Your task to perform on an android device: create a new album in the google photos Image 0: 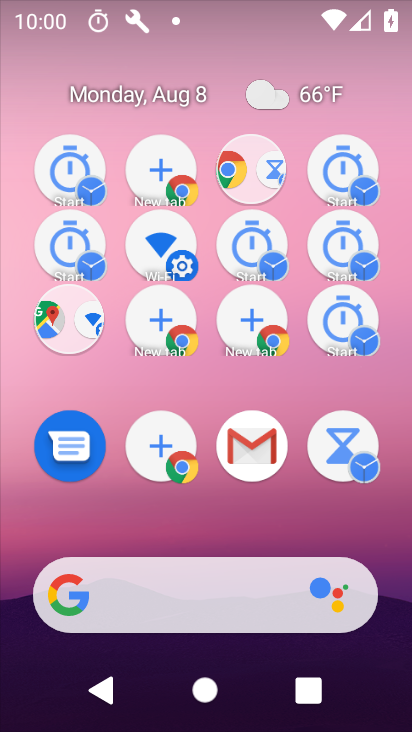
Step 0: click (212, 240)
Your task to perform on an android device: create a new album in the google photos Image 1: 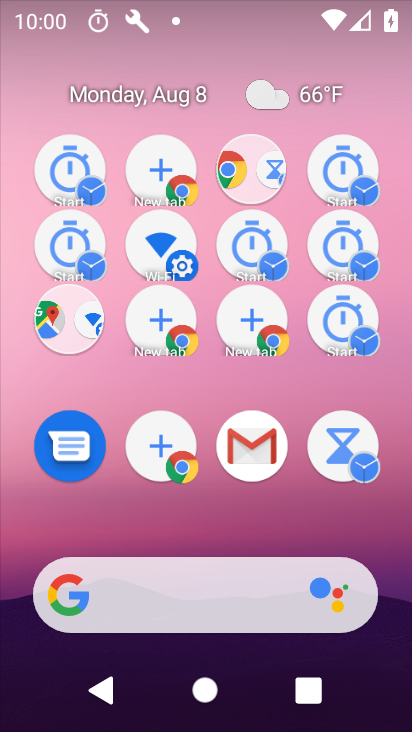
Step 1: drag from (254, 495) to (269, 279)
Your task to perform on an android device: create a new album in the google photos Image 2: 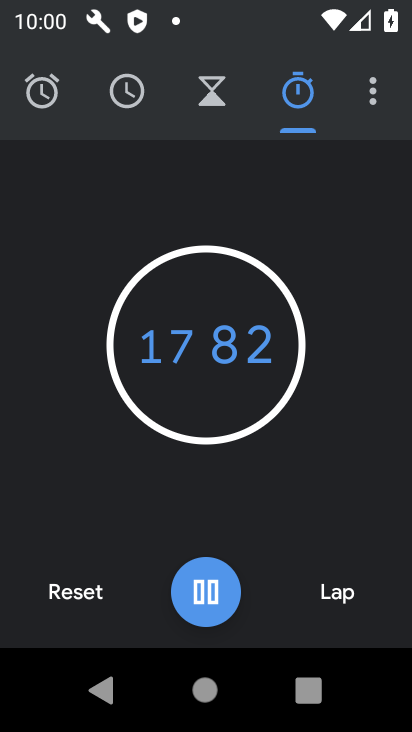
Step 2: click (200, 590)
Your task to perform on an android device: create a new album in the google photos Image 3: 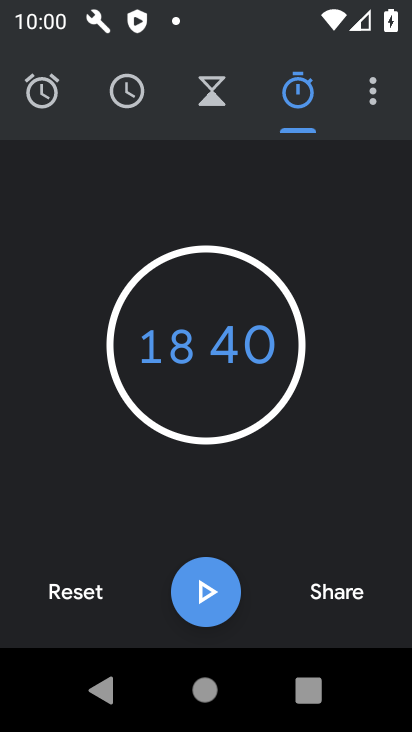
Step 3: press back button
Your task to perform on an android device: create a new album in the google photos Image 4: 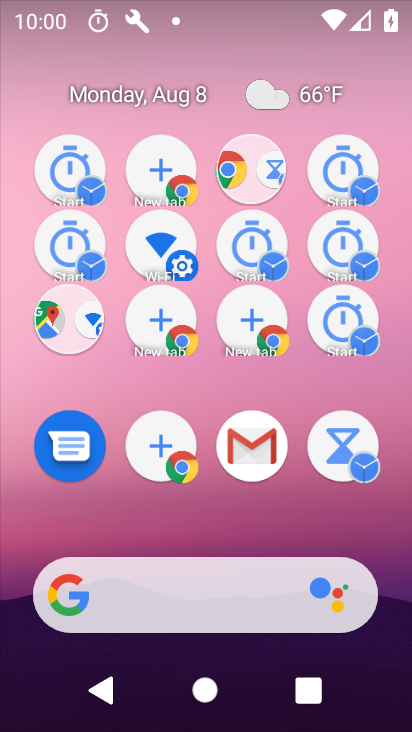
Step 4: drag from (135, 302) to (108, 210)
Your task to perform on an android device: create a new album in the google photos Image 5: 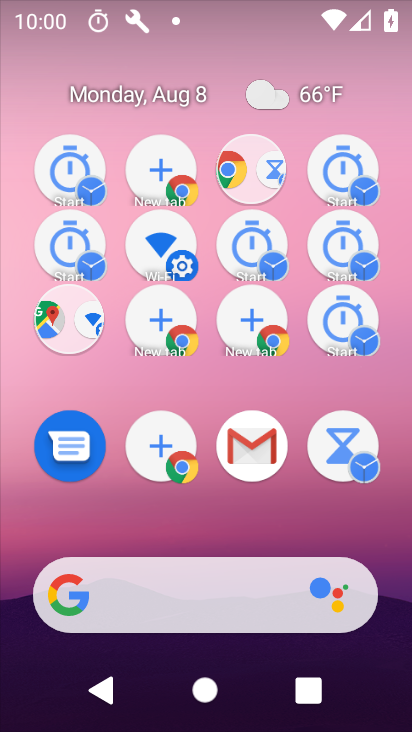
Step 5: drag from (237, 537) to (179, 319)
Your task to perform on an android device: create a new album in the google photos Image 6: 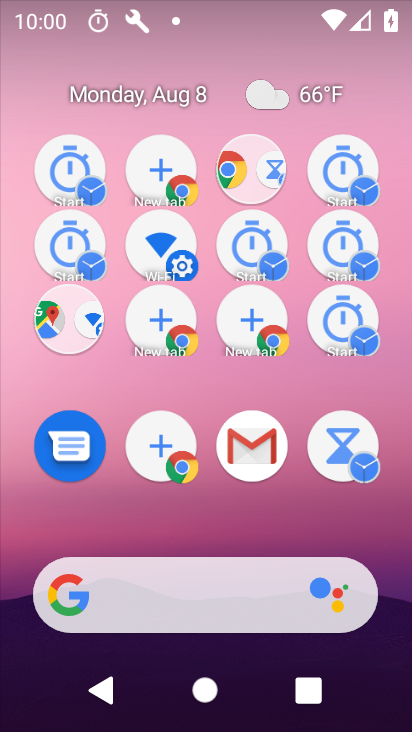
Step 6: drag from (205, 651) to (107, 247)
Your task to perform on an android device: create a new album in the google photos Image 7: 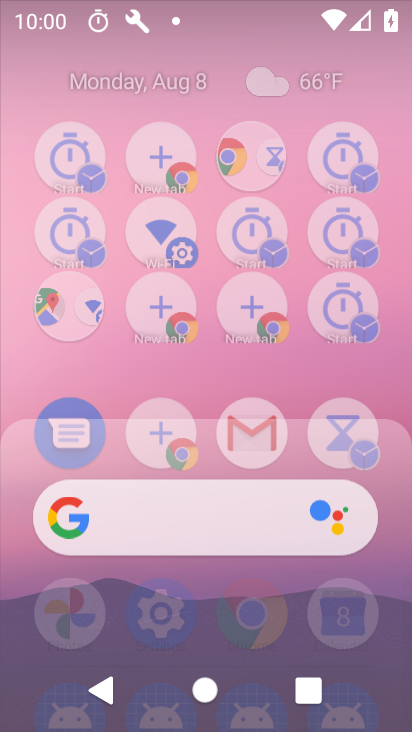
Step 7: drag from (222, 552) to (166, 231)
Your task to perform on an android device: create a new album in the google photos Image 8: 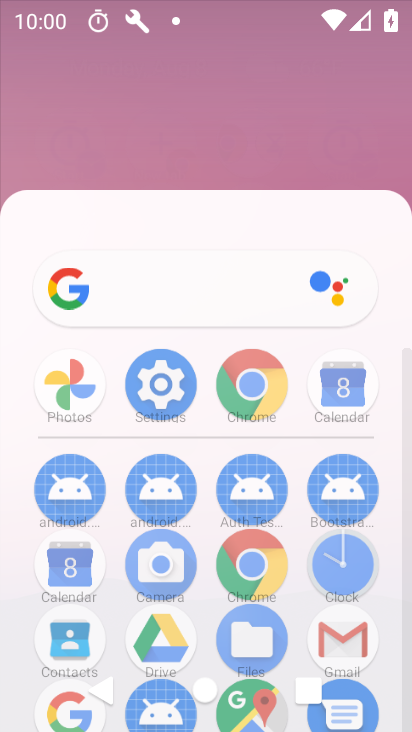
Step 8: drag from (252, 595) to (197, 206)
Your task to perform on an android device: create a new album in the google photos Image 9: 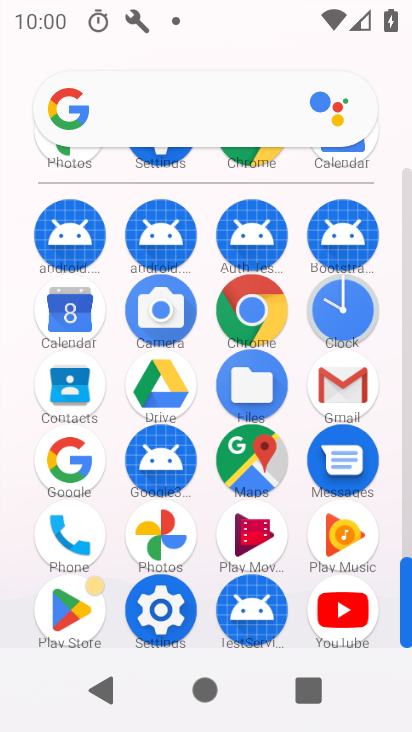
Step 9: click (157, 532)
Your task to perform on an android device: create a new album in the google photos Image 10: 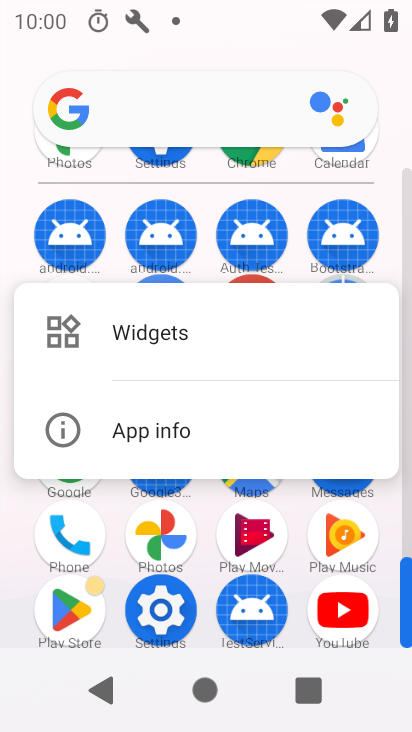
Step 10: click (164, 530)
Your task to perform on an android device: create a new album in the google photos Image 11: 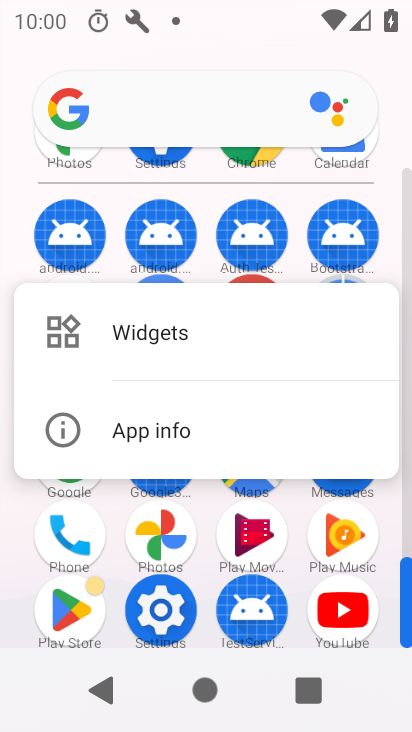
Step 11: click (170, 529)
Your task to perform on an android device: create a new album in the google photos Image 12: 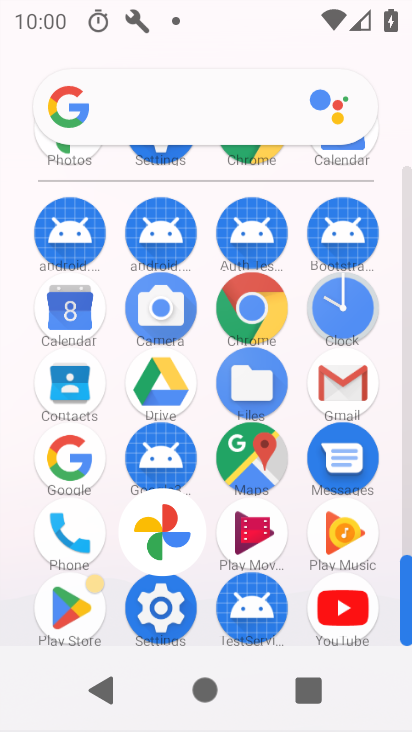
Step 12: click (170, 528)
Your task to perform on an android device: create a new album in the google photos Image 13: 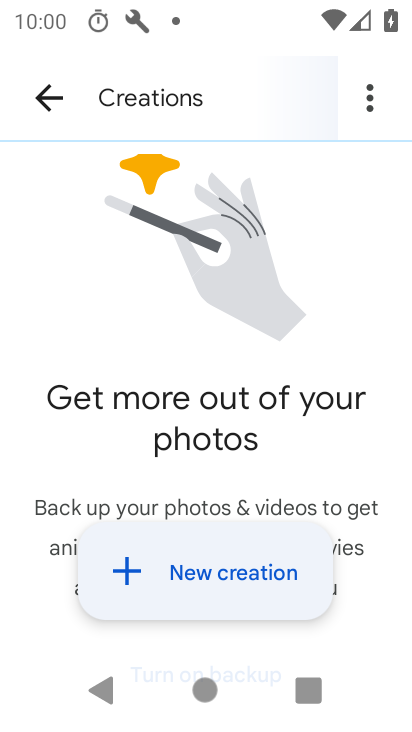
Step 13: click (128, 571)
Your task to perform on an android device: create a new album in the google photos Image 14: 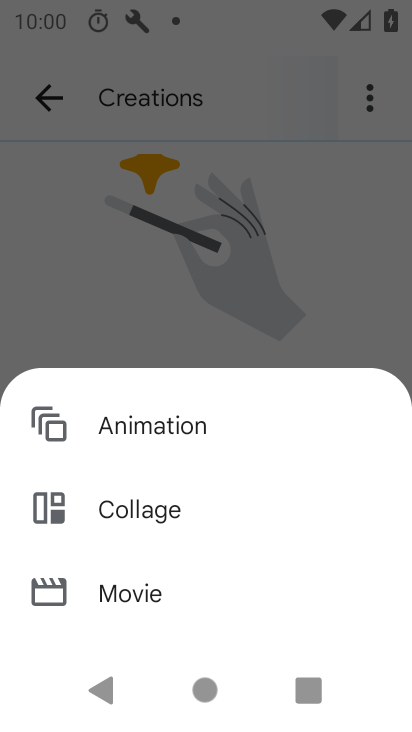
Step 14: click (115, 521)
Your task to perform on an android device: create a new album in the google photos Image 15: 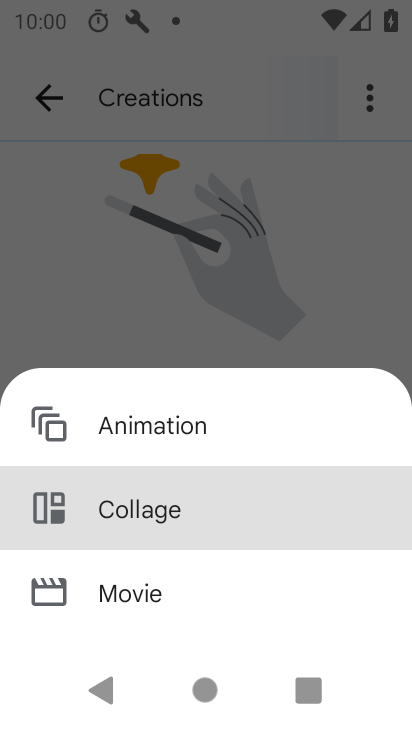
Step 15: click (115, 518)
Your task to perform on an android device: create a new album in the google photos Image 16: 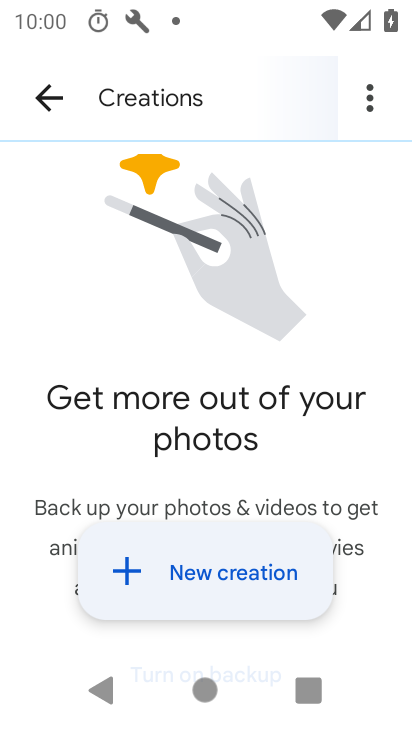
Step 16: click (119, 512)
Your task to perform on an android device: create a new album in the google photos Image 17: 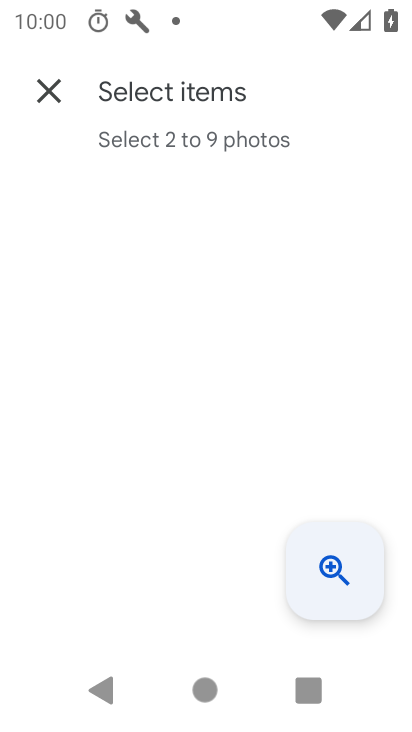
Step 17: click (174, 151)
Your task to perform on an android device: create a new album in the google photos Image 18: 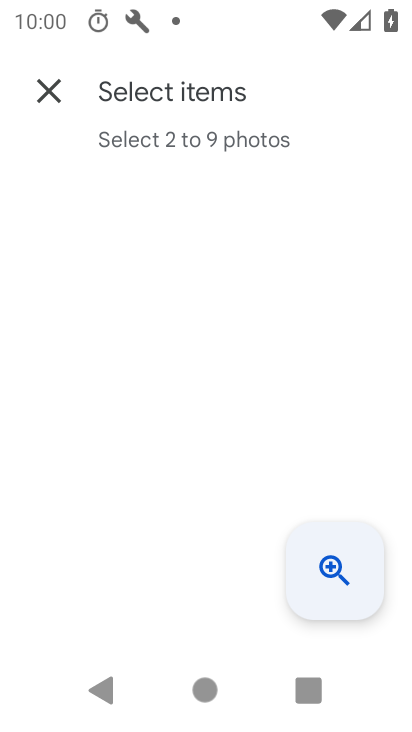
Step 18: click (308, 547)
Your task to perform on an android device: create a new album in the google photos Image 19: 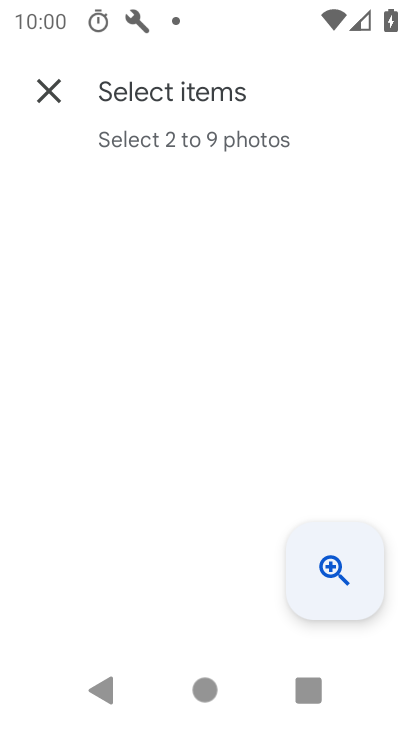
Step 19: click (327, 572)
Your task to perform on an android device: create a new album in the google photos Image 20: 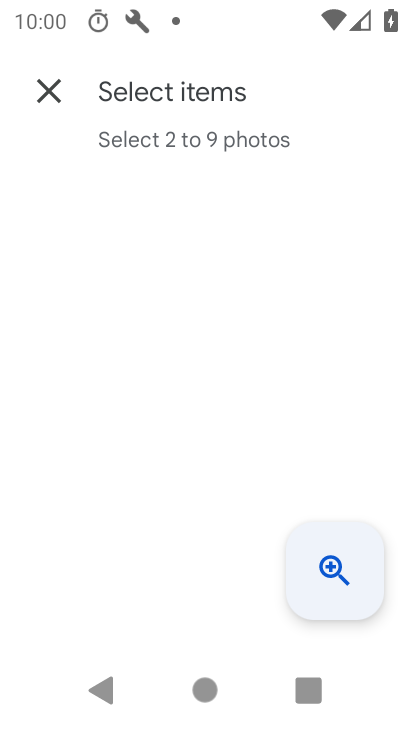
Step 20: click (53, 84)
Your task to perform on an android device: create a new album in the google photos Image 21: 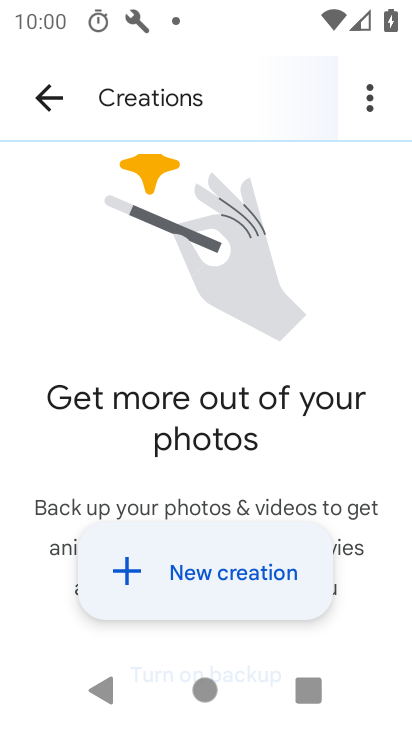
Step 21: click (225, 575)
Your task to perform on an android device: create a new album in the google photos Image 22: 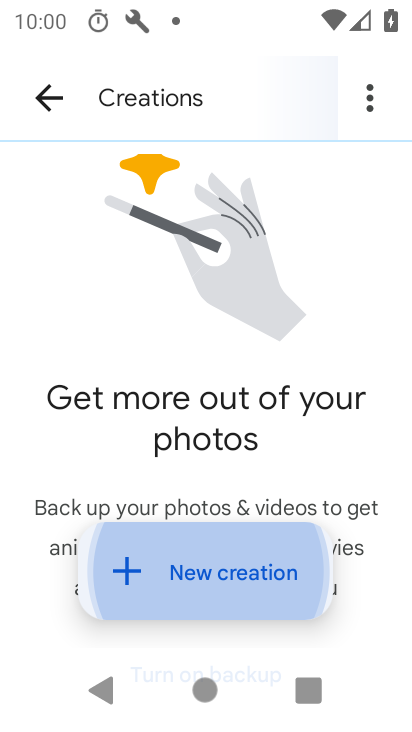
Step 22: click (226, 579)
Your task to perform on an android device: create a new album in the google photos Image 23: 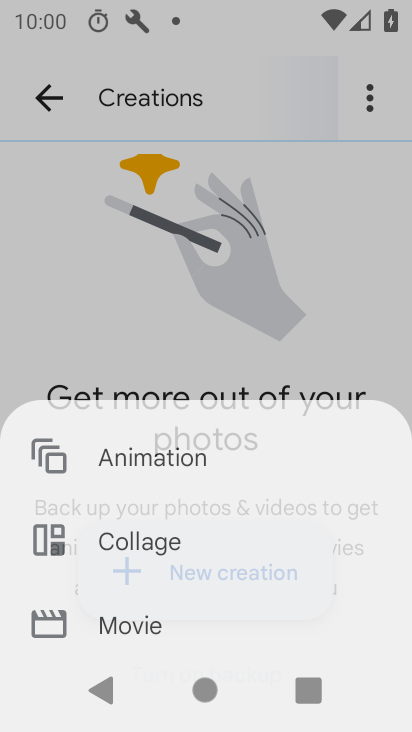
Step 23: click (227, 579)
Your task to perform on an android device: create a new album in the google photos Image 24: 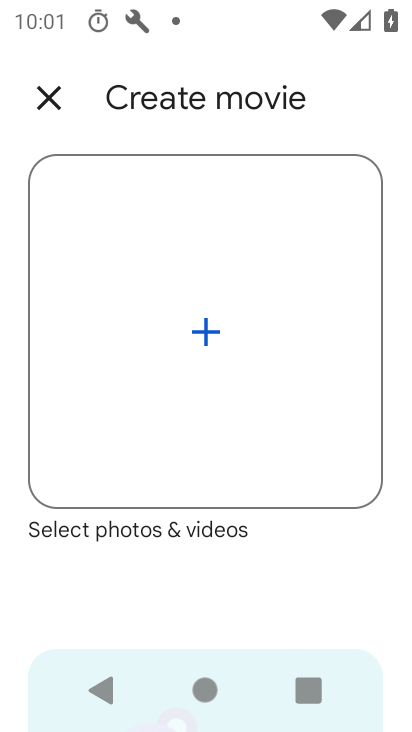
Step 24: click (50, 90)
Your task to perform on an android device: create a new album in the google photos Image 25: 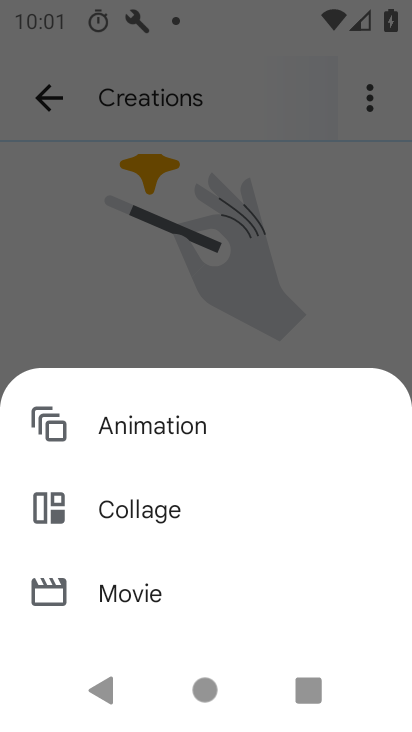
Step 25: click (130, 514)
Your task to perform on an android device: create a new album in the google photos Image 26: 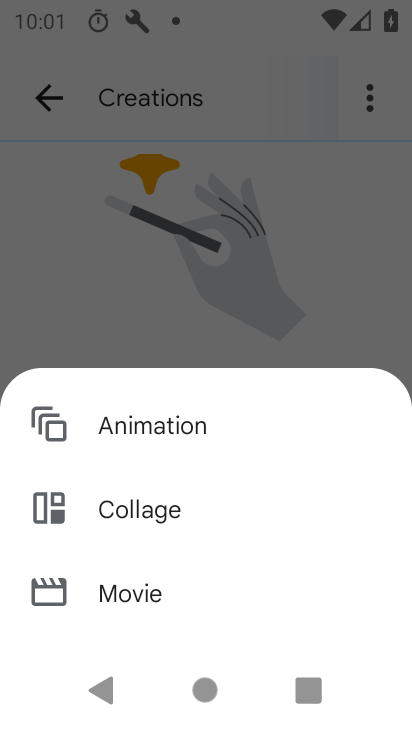
Step 26: click (129, 513)
Your task to perform on an android device: create a new album in the google photos Image 27: 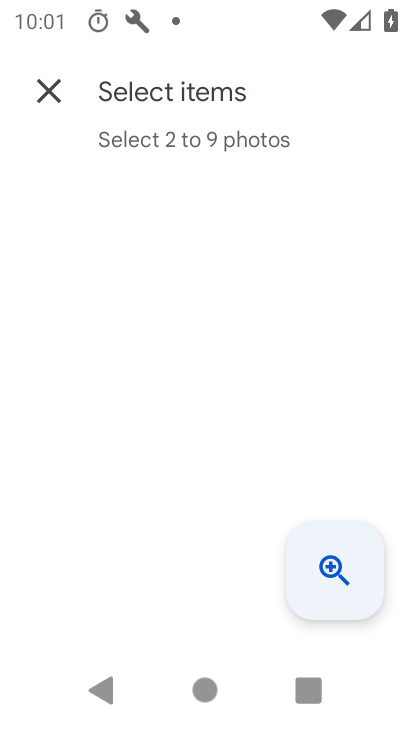
Step 27: click (131, 513)
Your task to perform on an android device: create a new album in the google photos Image 28: 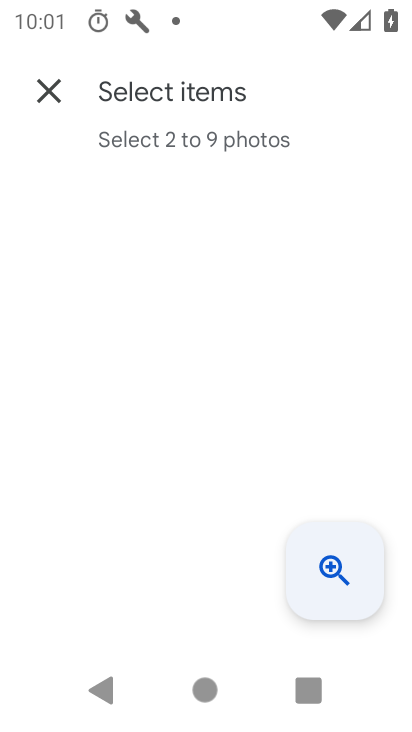
Step 28: click (156, 139)
Your task to perform on an android device: create a new album in the google photos Image 29: 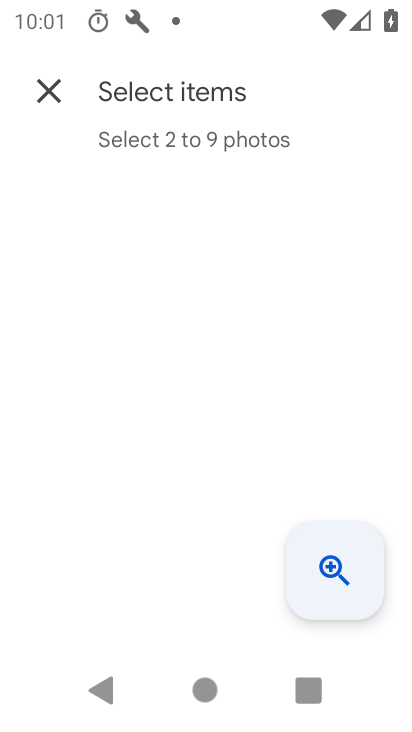
Step 29: click (159, 138)
Your task to perform on an android device: create a new album in the google photos Image 30: 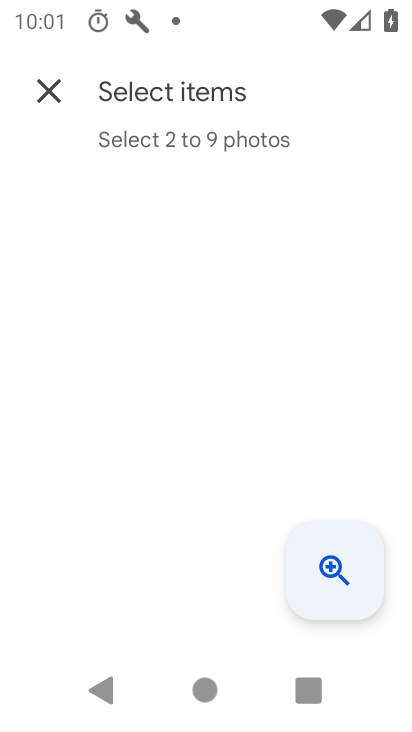
Step 30: click (163, 137)
Your task to perform on an android device: create a new album in the google photos Image 31: 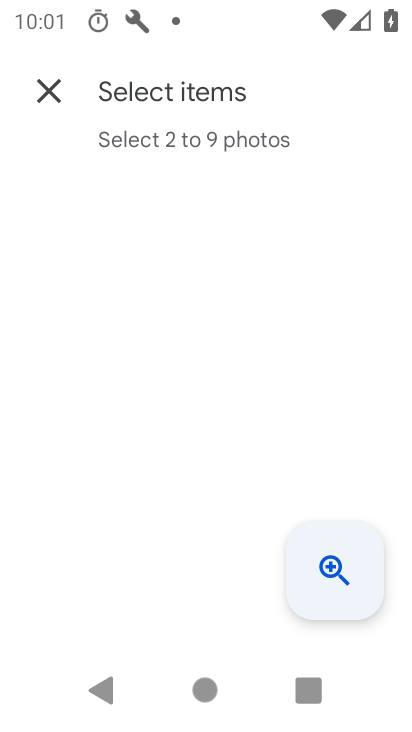
Step 31: click (184, 100)
Your task to perform on an android device: create a new album in the google photos Image 32: 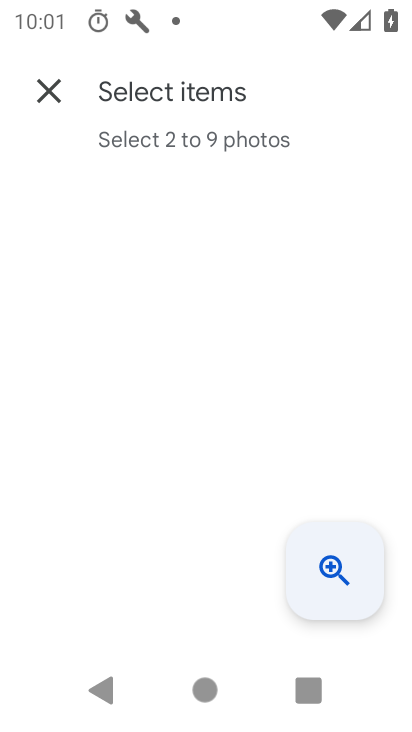
Step 32: click (190, 89)
Your task to perform on an android device: create a new album in the google photos Image 33: 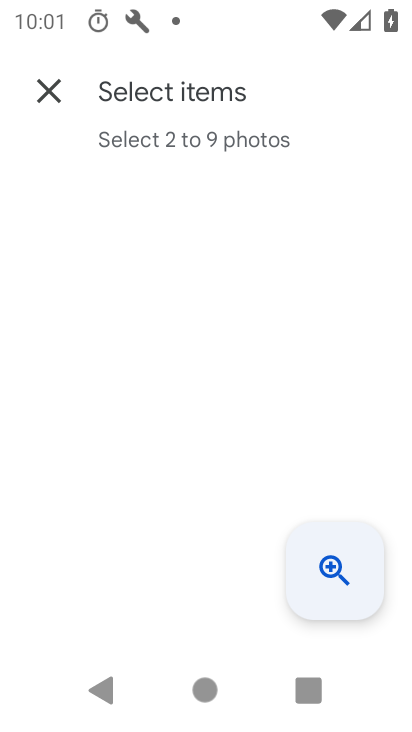
Step 33: click (344, 577)
Your task to perform on an android device: create a new album in the google photos Image 34: 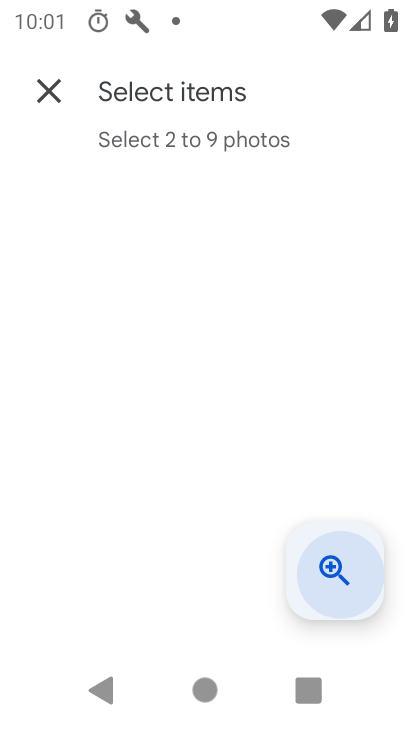
Step 34: click (344, 577)
Your task to perform on an android device: create a new album in the google photos Image 35: 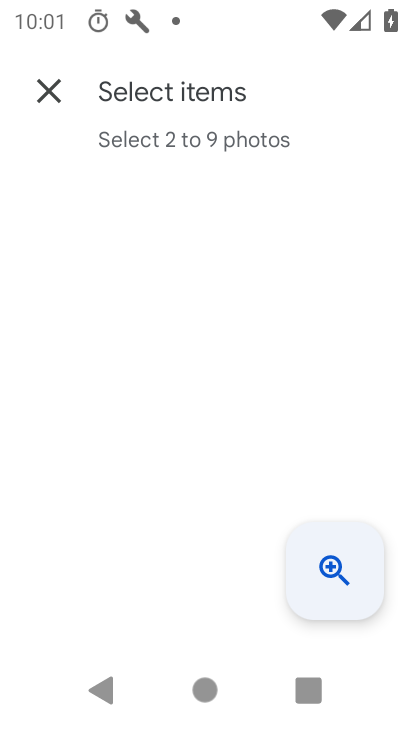
Step 35: click (43, 83)
Your task to perform on an android device: create a new album in the google photos Image 36: 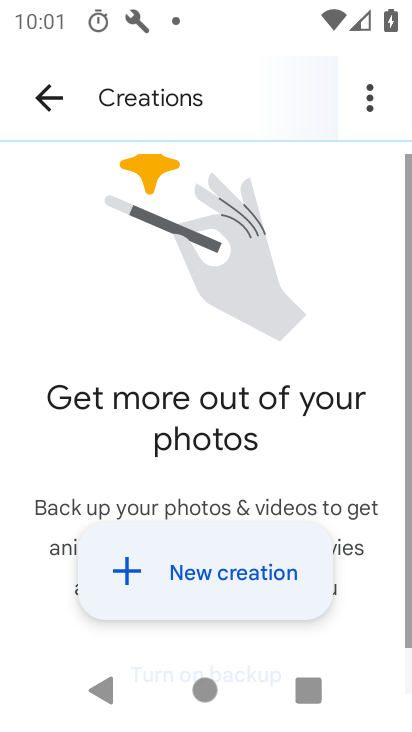
Step 36: click (263, 576)
Your task to perform on an android device: create a new album in the google photos Image 37: 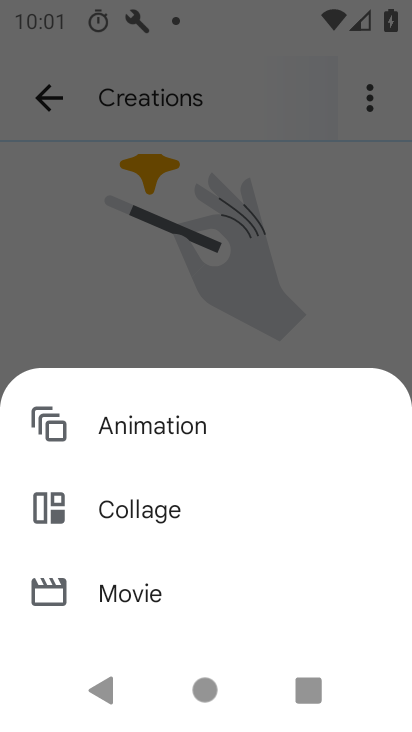
Step 37: click (84, 423)
Your task to perform on an android device: create a new album in the google photos Image 38: 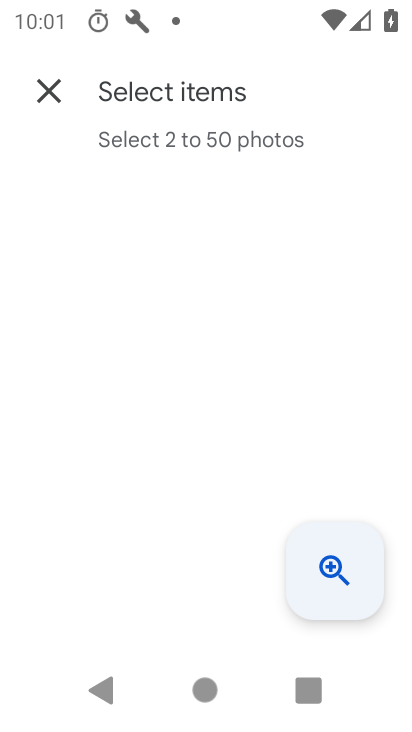
Step 38: click (337, 576)
Your task to perform on an android device: create a new album in the google photos Image 39: 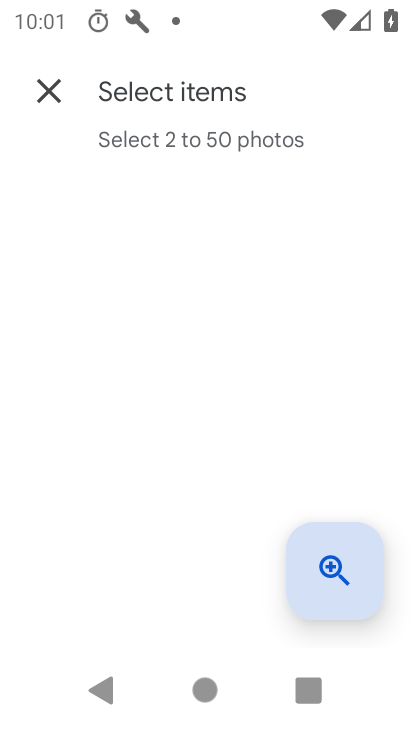
Step 39: click (337, 576)
Your task to perform on an android device: create a new album in the google photos Image 40: 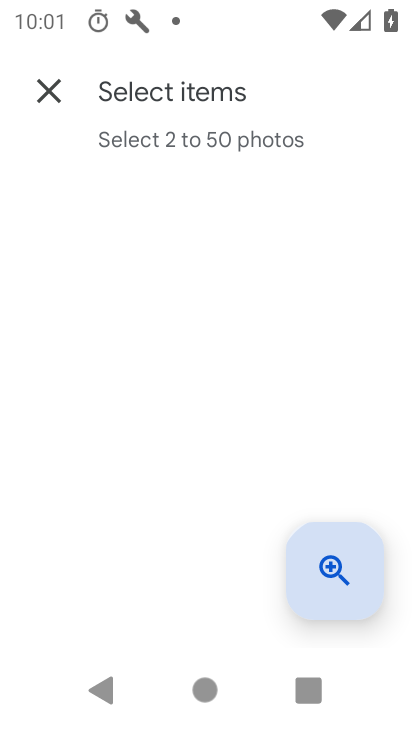
Step 40: click (336, 575)
Your task to perform on an android device: create a new album in the google photos Image 41: 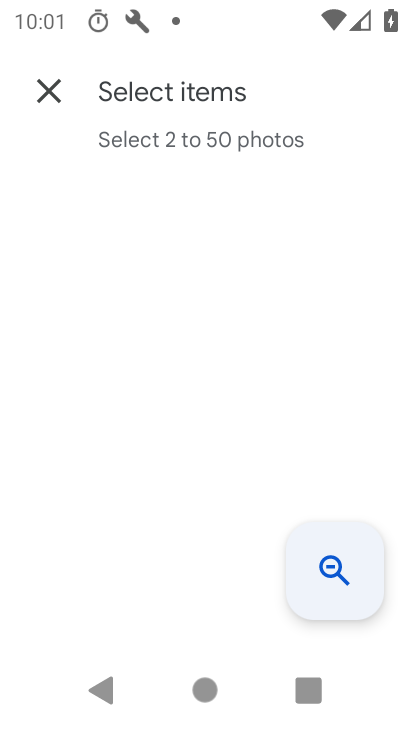
Step 41: click (248, 138)
Your task to perform on an android device: create a new album in the google photos Image 42: 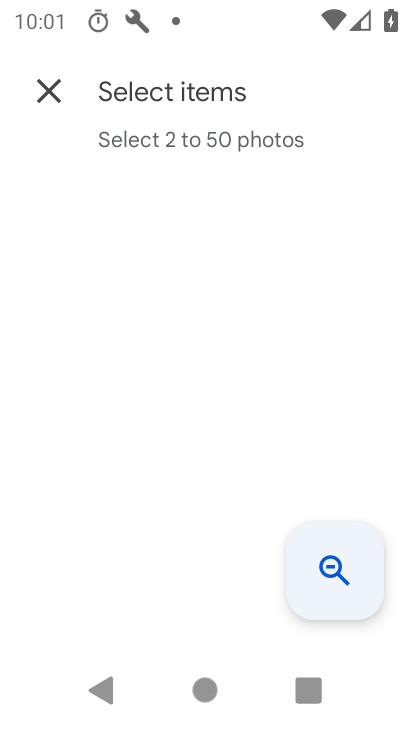
Step 42: click (257, 131)
Your task to perform on an android device: create a new album in the google photos Image 43: 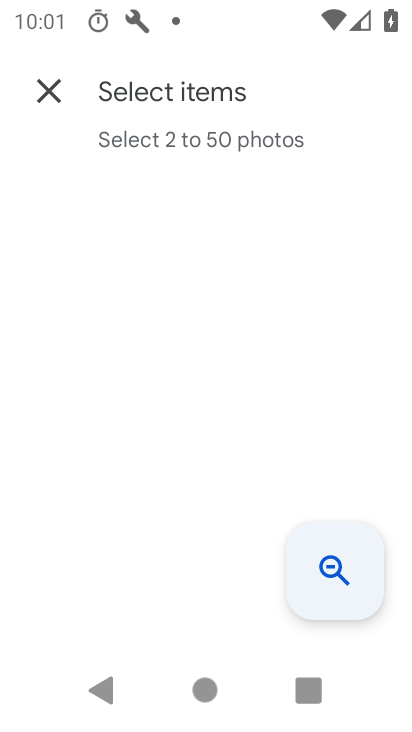
Step 43: click (259, 136)
Your task to perform on an android device: create a new album in the google photos Image 44: 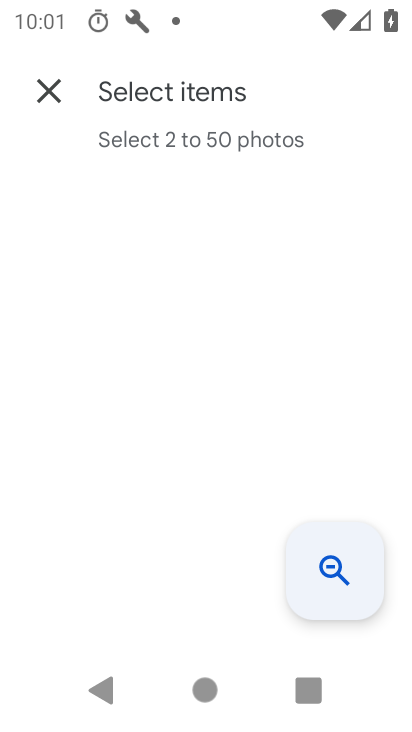
Step 44: click (259, 136)
Your task to perform on an android device: create a new album in the google photos Image 45: 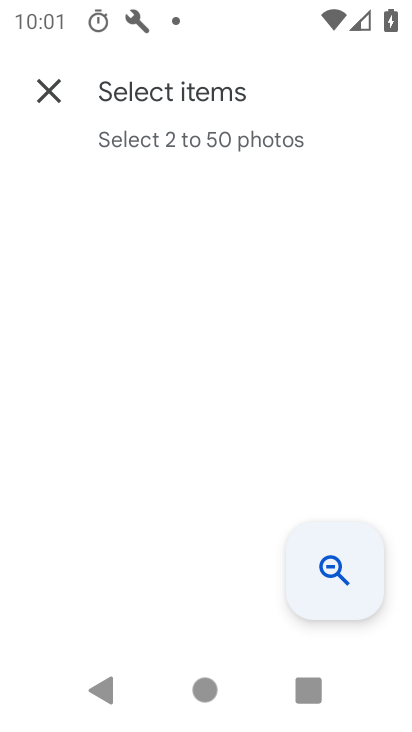
Step 45: click (40, 89)
Your task to perform on an android device: create a new album in the google photos Image 46: 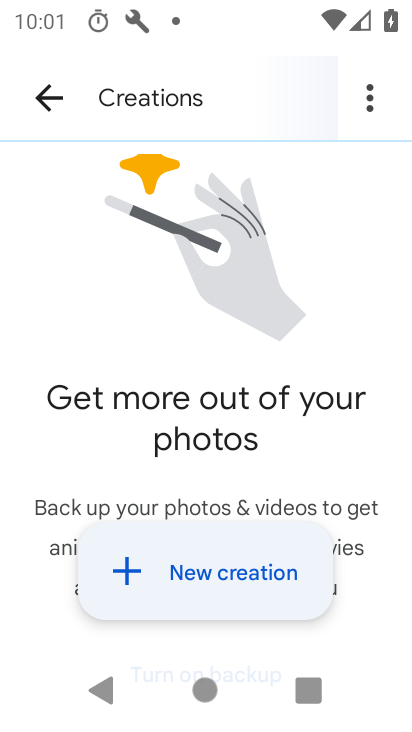
Step 46: click (230, 569)
Your task to perform on an android device: create a new album in the google photos Image 47: 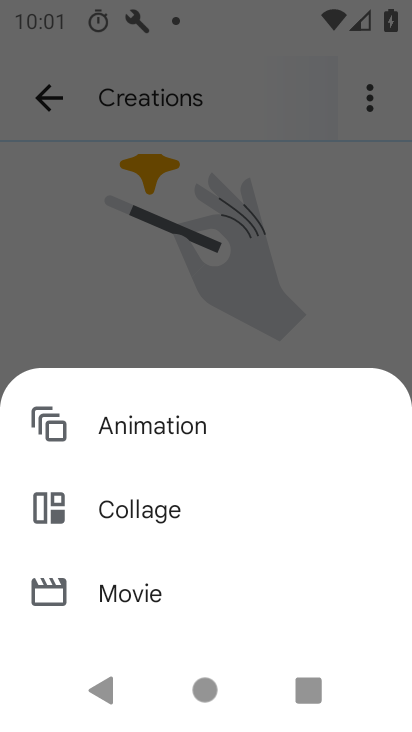
Step 47: click (137, 585)
Your task to perform on an android device: create a new album in the google photos Image 48: 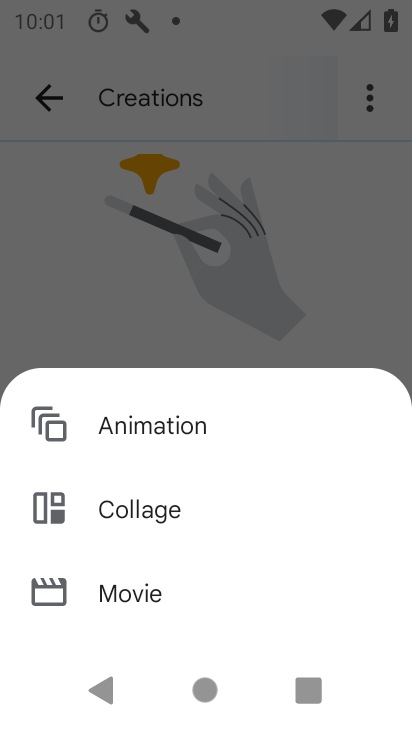
Step 48: click (136, 586)
Your task to perform on an android device: create a new album in the google photos Image 49: 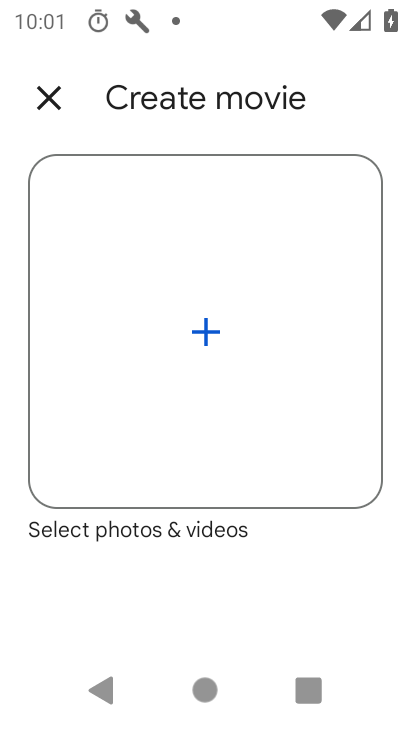
Step 49: click (49, 94)
Your task to perform on an android device: create a new album in the google photos Image 50: 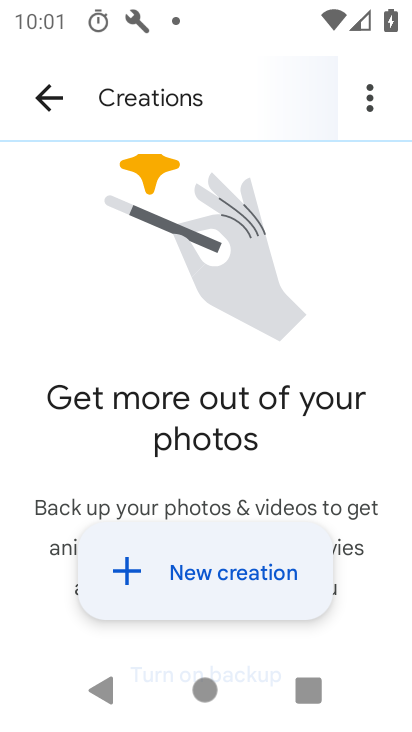
Step 50: task complete